Your task to perform on an android device: check android version Image 0: 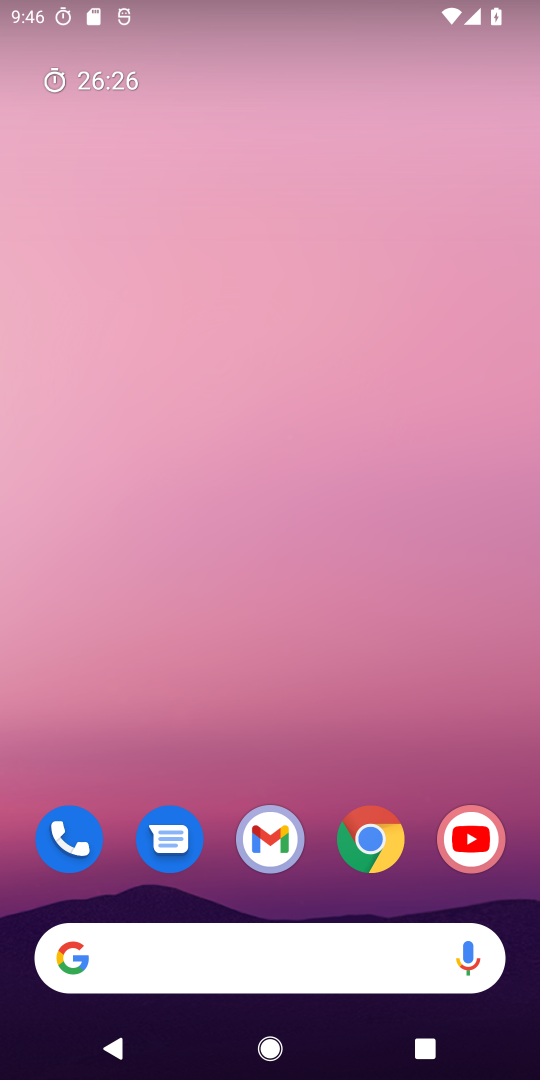
Step 0: press home button
Your task to perform on an android device: check android version Image 1: 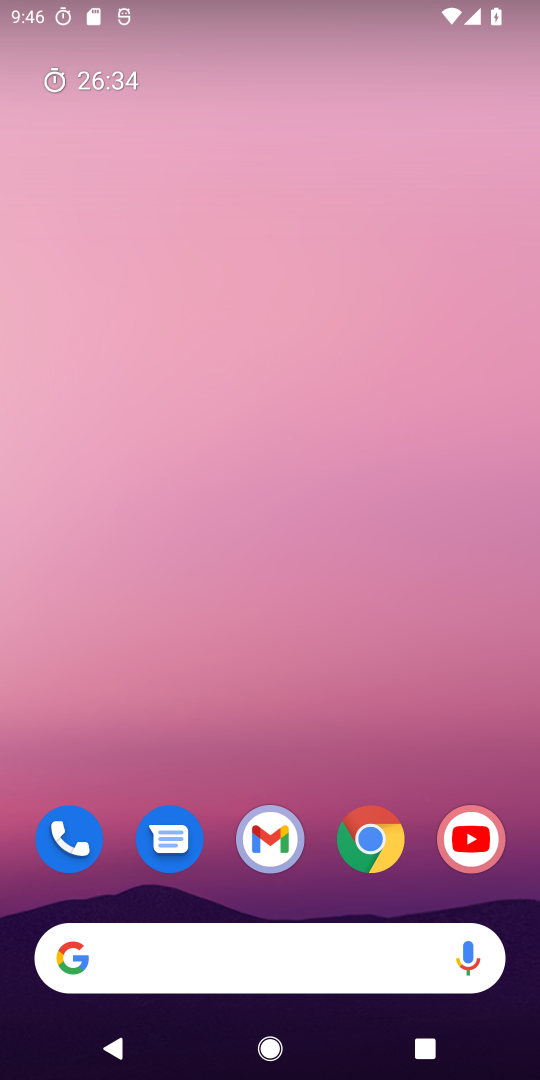
Step 1: drag from (319, 781) to (391, 0)
Your task to perform on an android device: check android version Image 2: 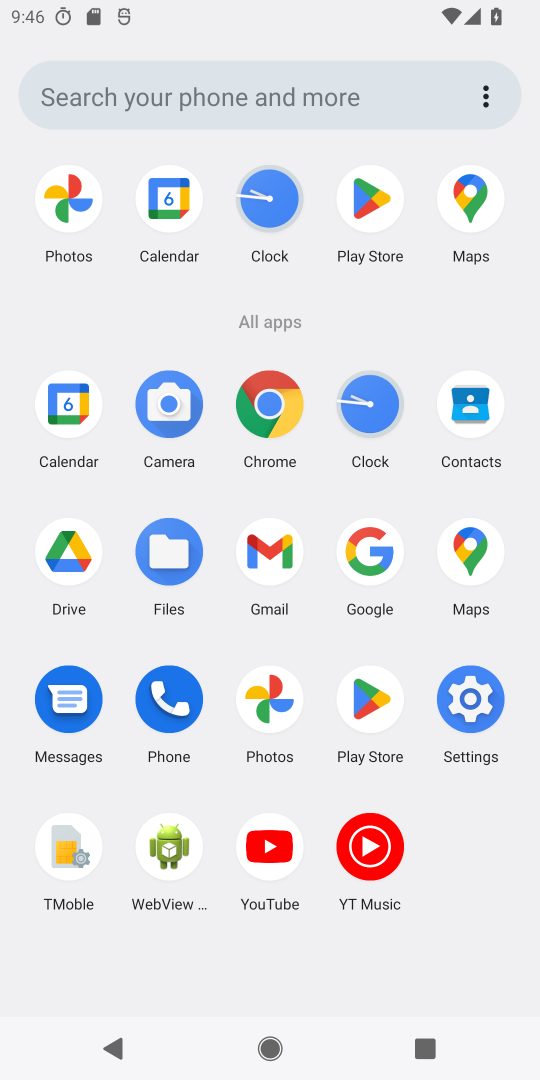
Step 2: click (456, 691)
Your task to perform on an android device: check android version Image 3: 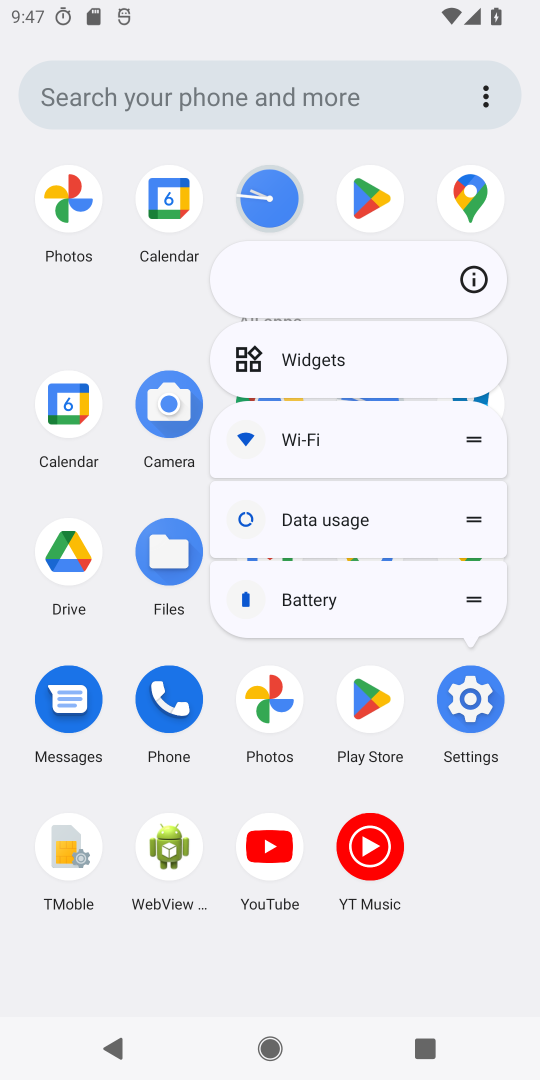
Step 3: click (473, 695)
Your task to perform on an android device: check android version Image 4: 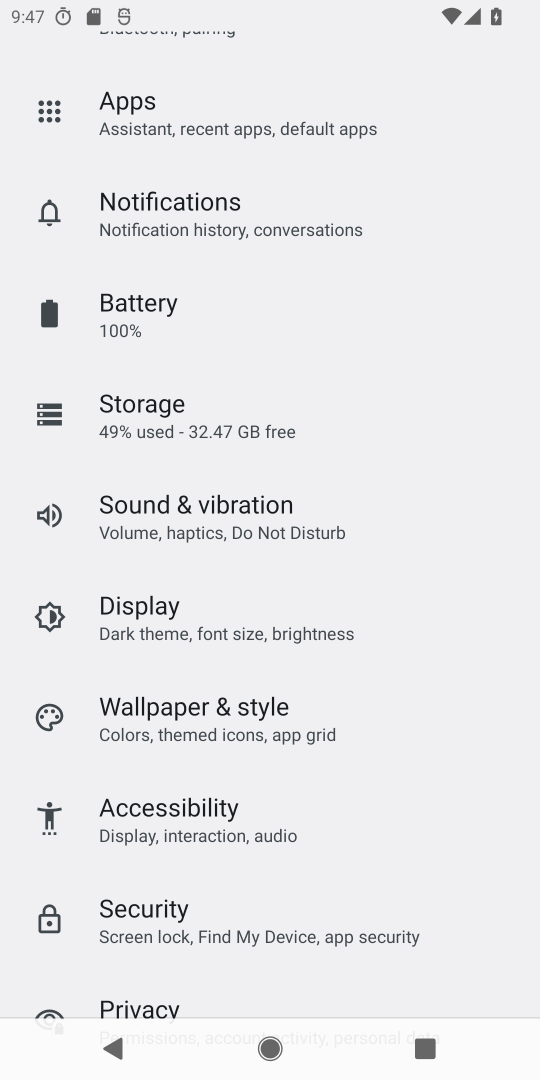
Step 4: drag from (230, 958) to (359, 187)
Your task to perform on an android device: check android version Image 5: 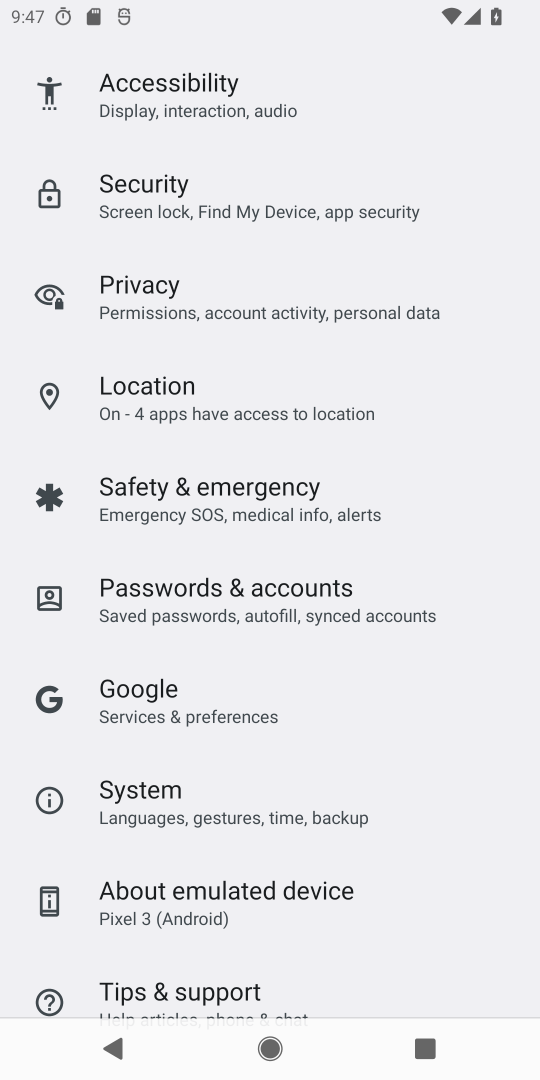
Step 5: drag from (290, 963) to (351, 135)
Your task to perform on an android device: check android version Image 6: 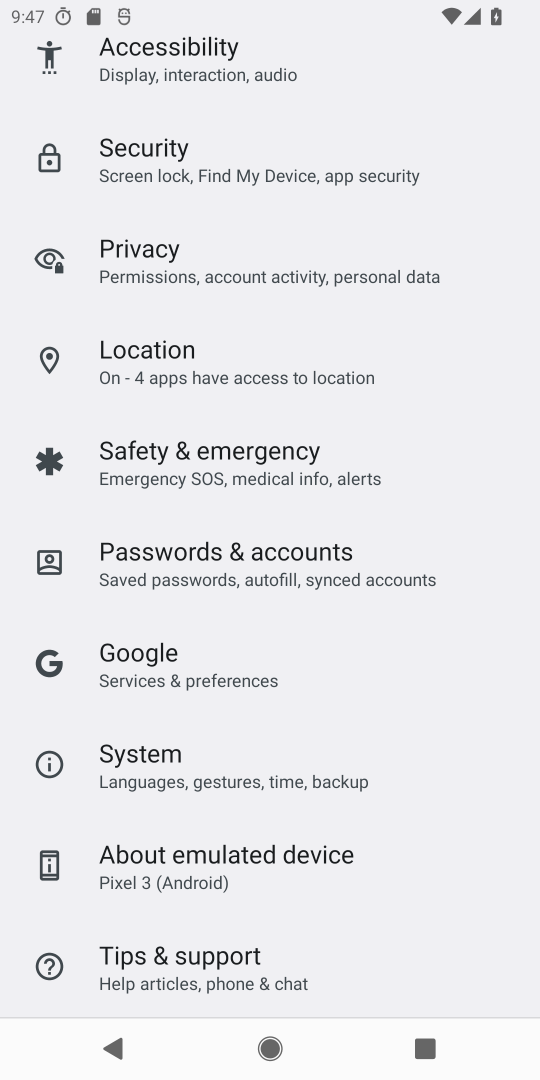
Step 6: click (226, 852)
Your task to perform on an android device: check android version Image 7: 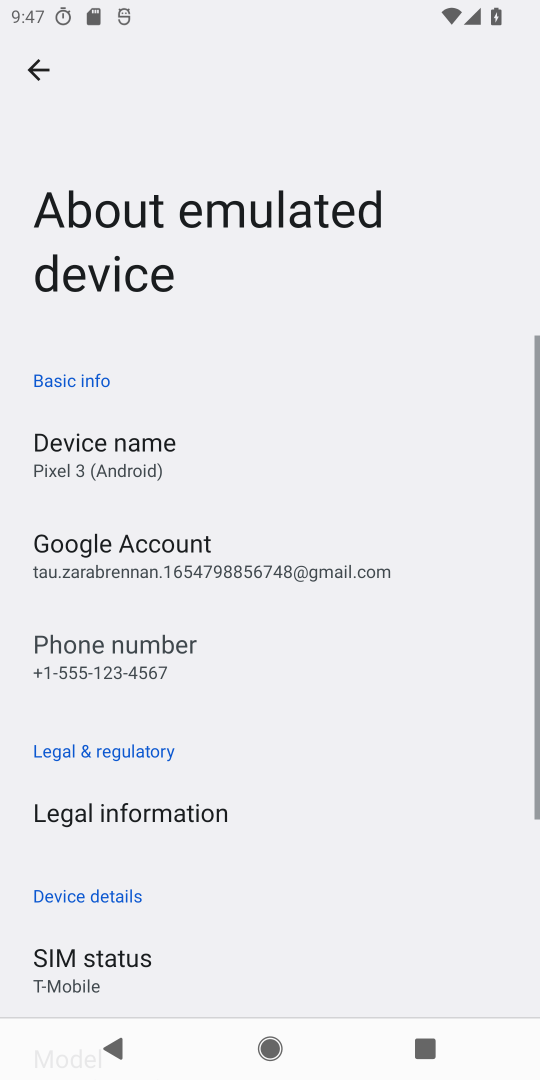
Step 7: drag from (224, 937) to (272, 239)
Your task to perform on an android device: check android version Image 8: 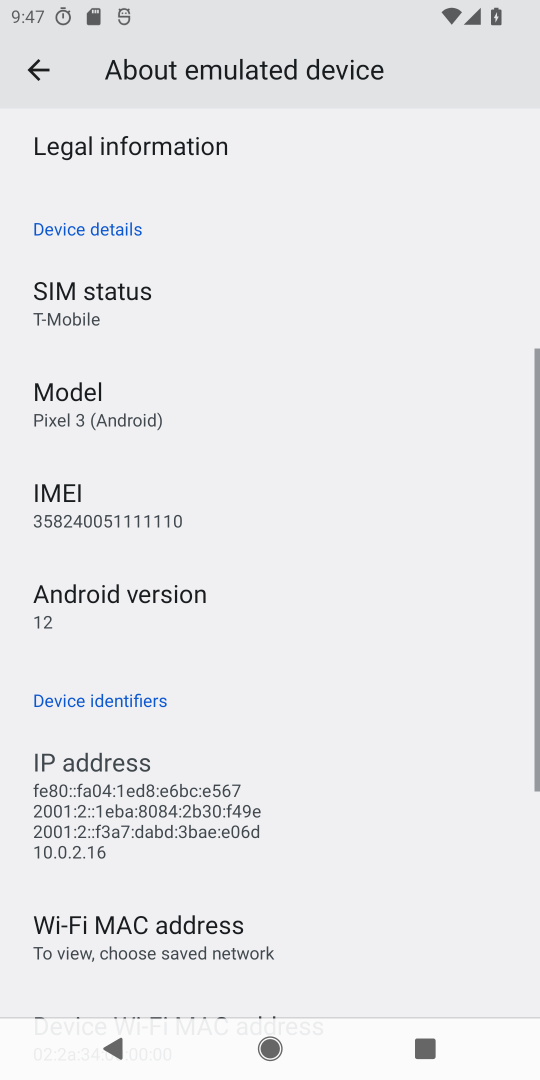
Step 8: click (98, 597)
Your task to perform on an android device: check android version Image 9: 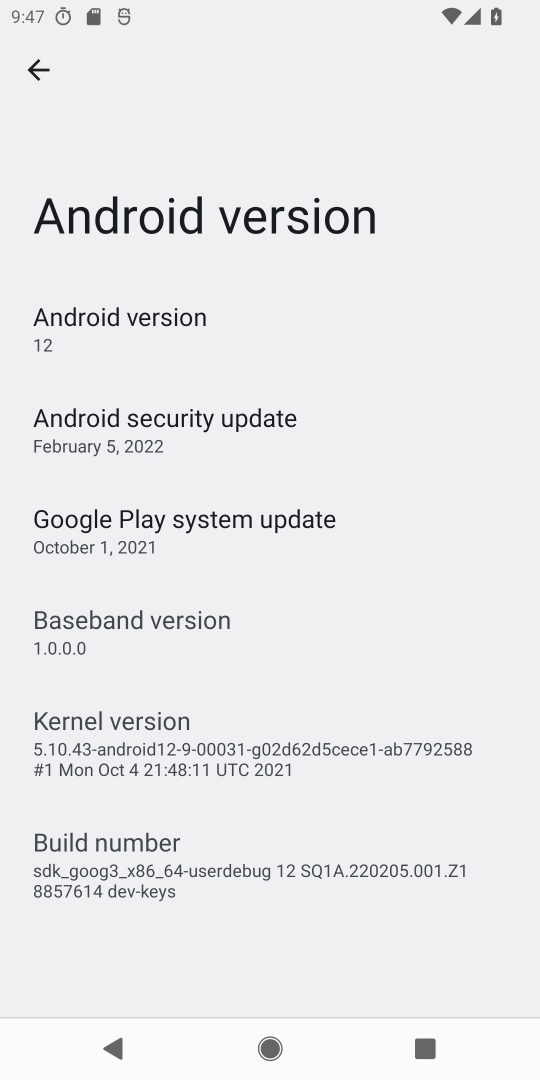
Step 9: task complete